Your task to perform on an android device: delete browsing data in the chrome app Image 0: 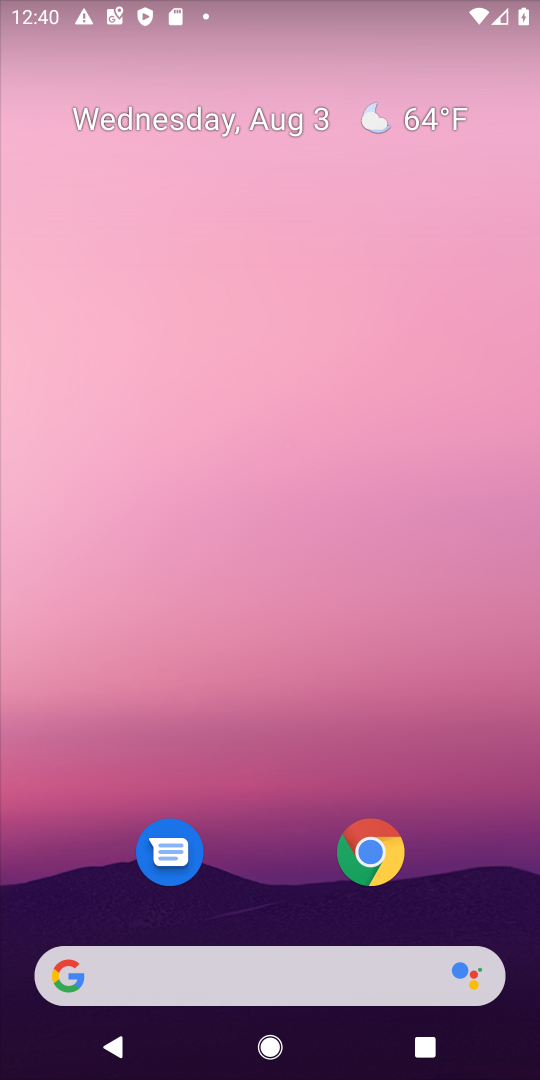
Step 0: drag from (445, 901) to (408, 1)
Your task to perform on an android device: delete browsing data in the chrome app Image 1: 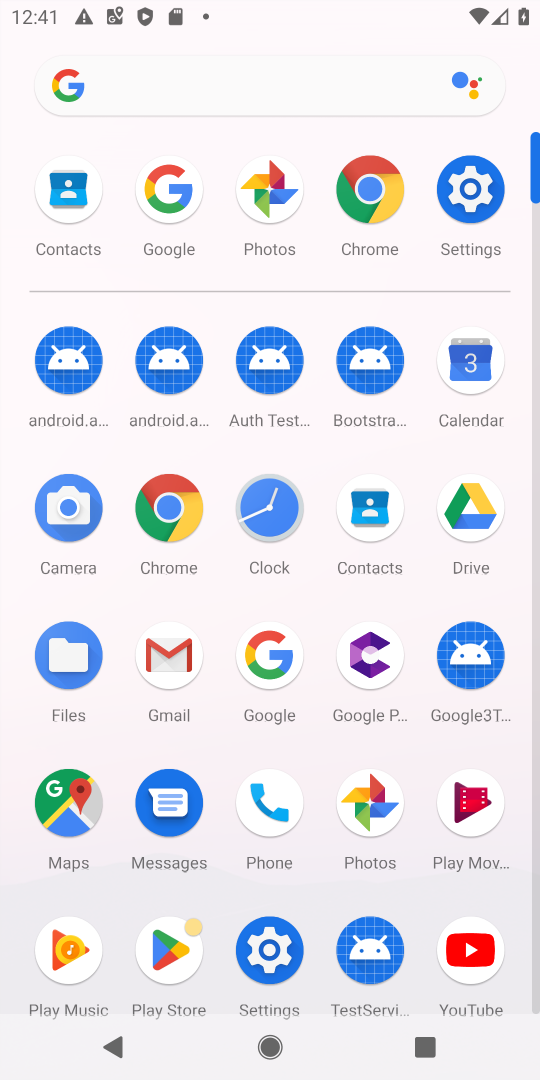
Step 1: click (155, 513)
Your task to perform on an android device: delete browsing data in the chrome app Image 2: 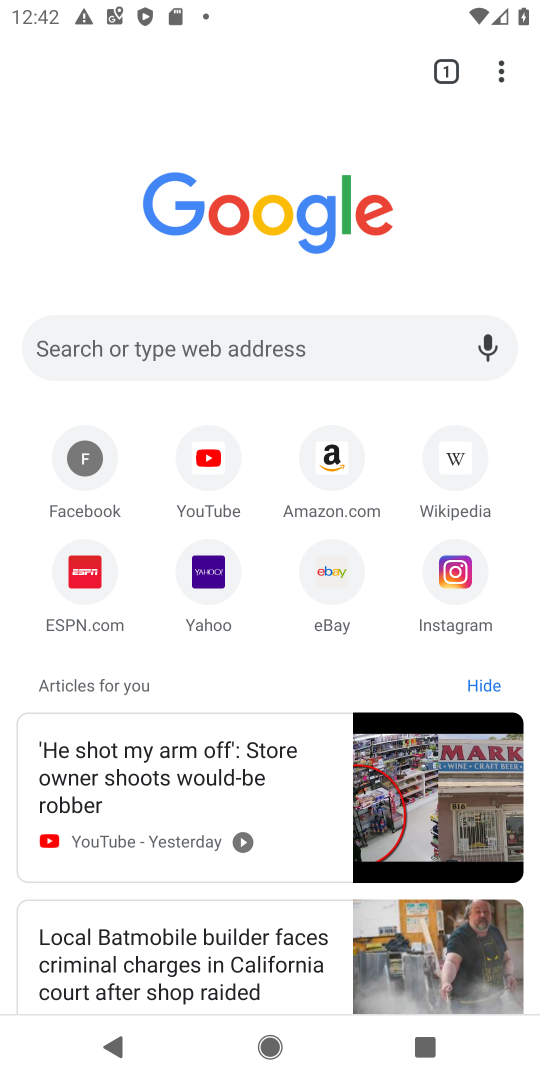
Step 2: click (501, 67)
Your task to perform on an android device: delete browsing data in the chrome app Image 3: 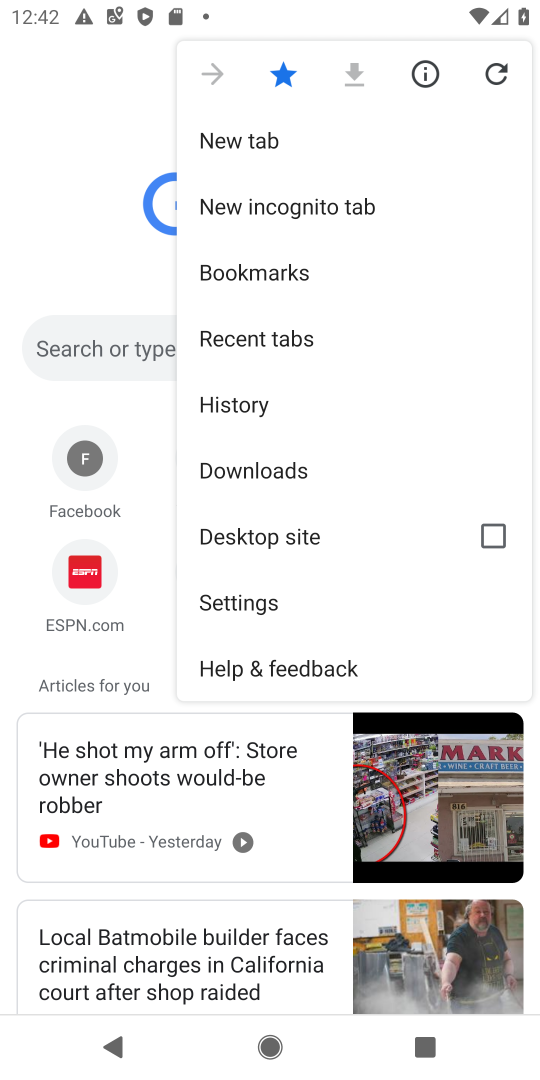
Step 3: click (259, 421)
Your task to perform on an android device: delete browsing data in the chrome app Image 4: 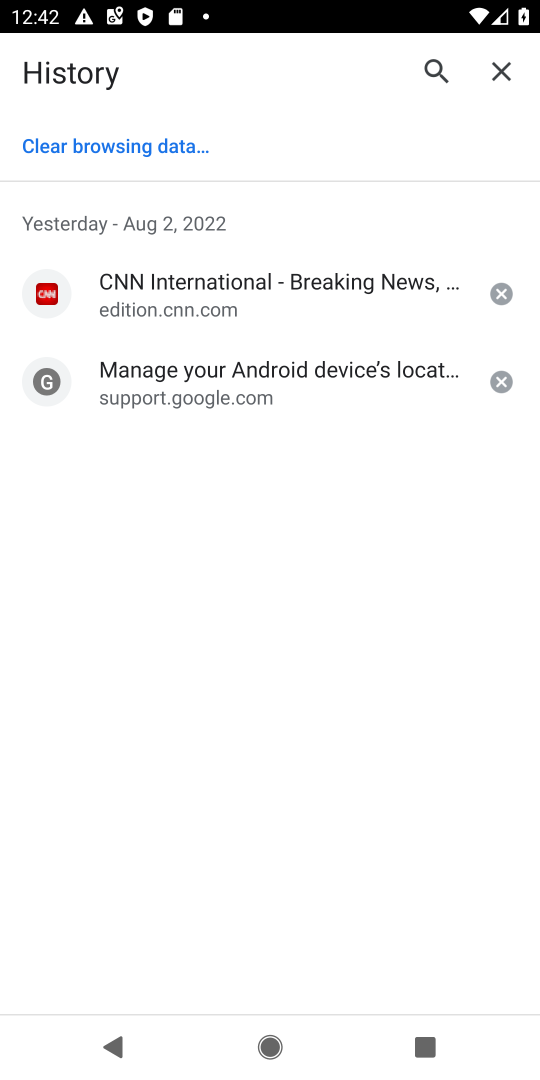
Step 4: click (91, 141)
Your task to perform on an android device: delete browsing data in the chrome app Image 5: 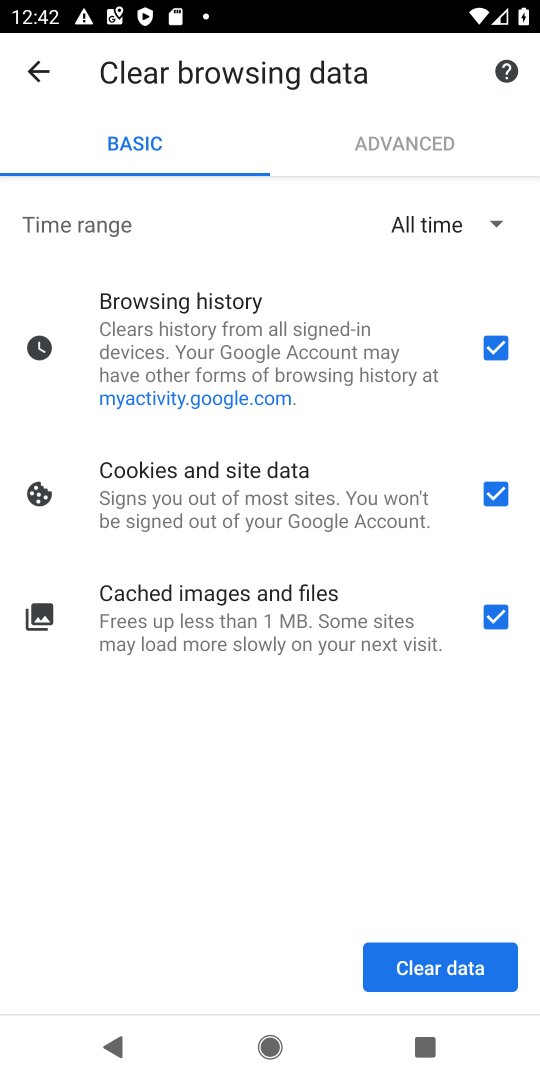
Step 5: click (410, 962)
Your task to perform on an android device: delete browsing data in the chrome app Image 6: 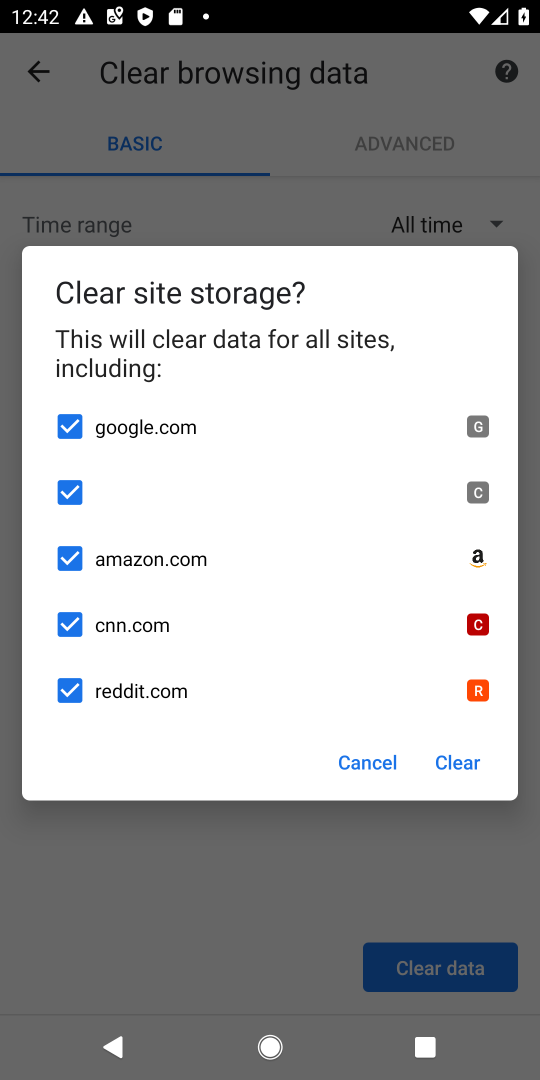
Step 6: click (470, 765)
Your task to perform on an android device: delete browsing data in the chrome app Image 7: 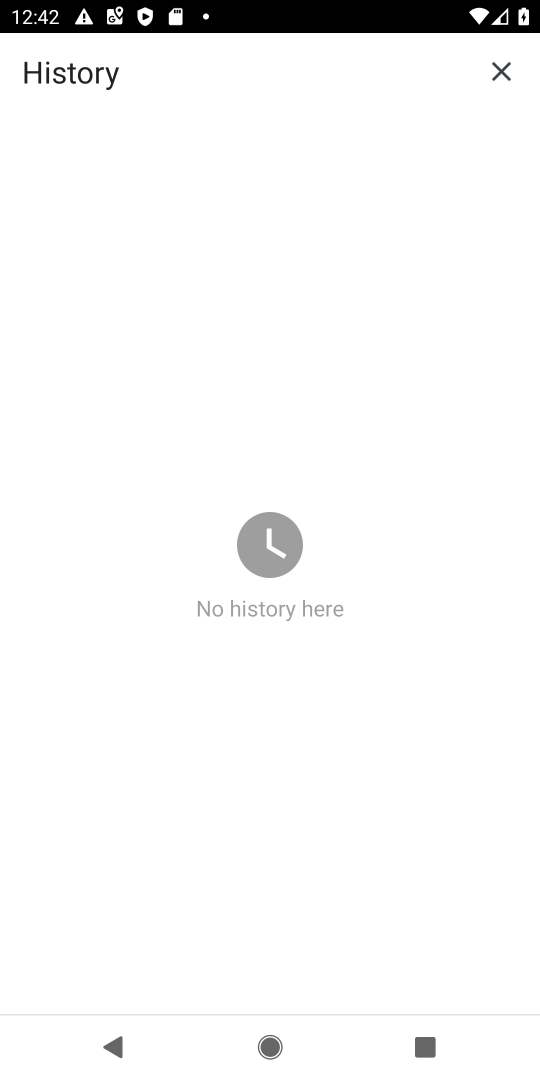
Step 7: task complete